Your task to perform on an android device: Search for the best way to make a resume. Image 0: 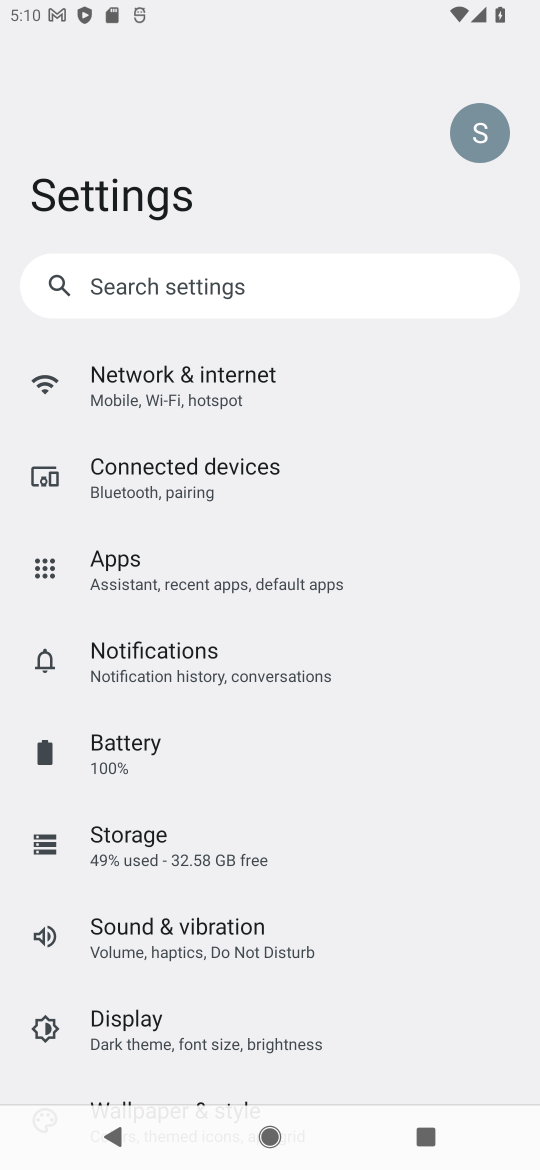
Step 0: press home button
Your task to perform on an android device: Search for the best way to make a resume. Image 1: 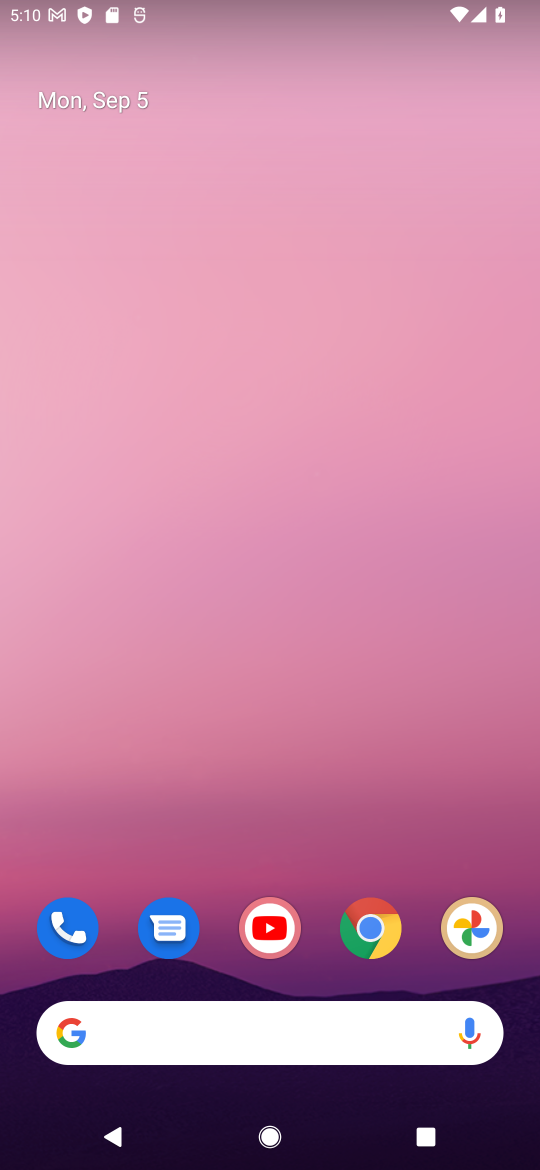
Step 1: click (382, 933)
Your task to perform on an android device: Search for the best way to make a resume. Image 2: 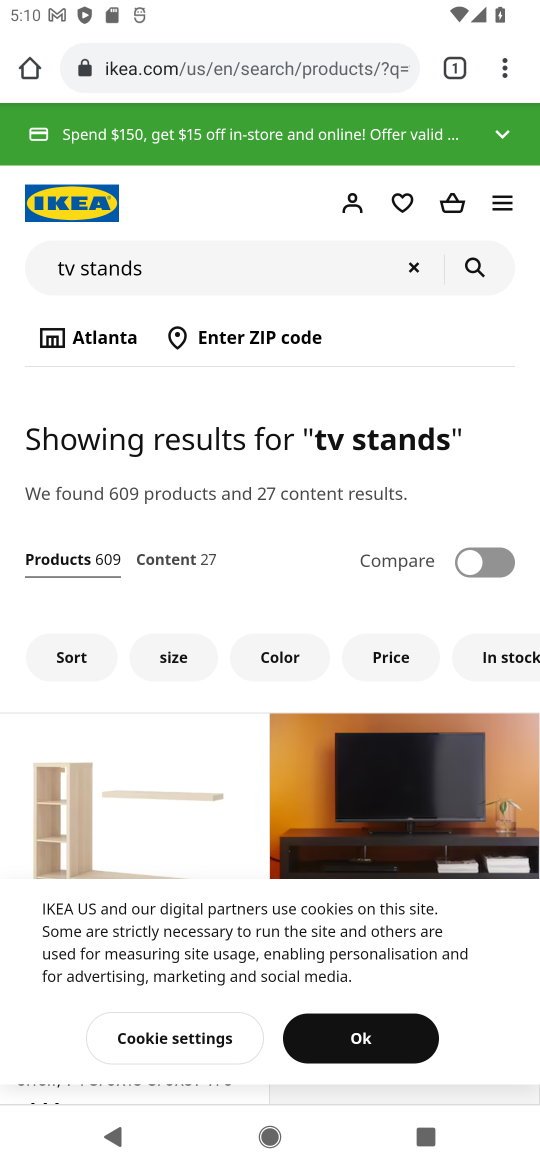
Step 2: click (214, 66)
Your task to perform on an android device: Search for the best way to make a resume. Image 3: 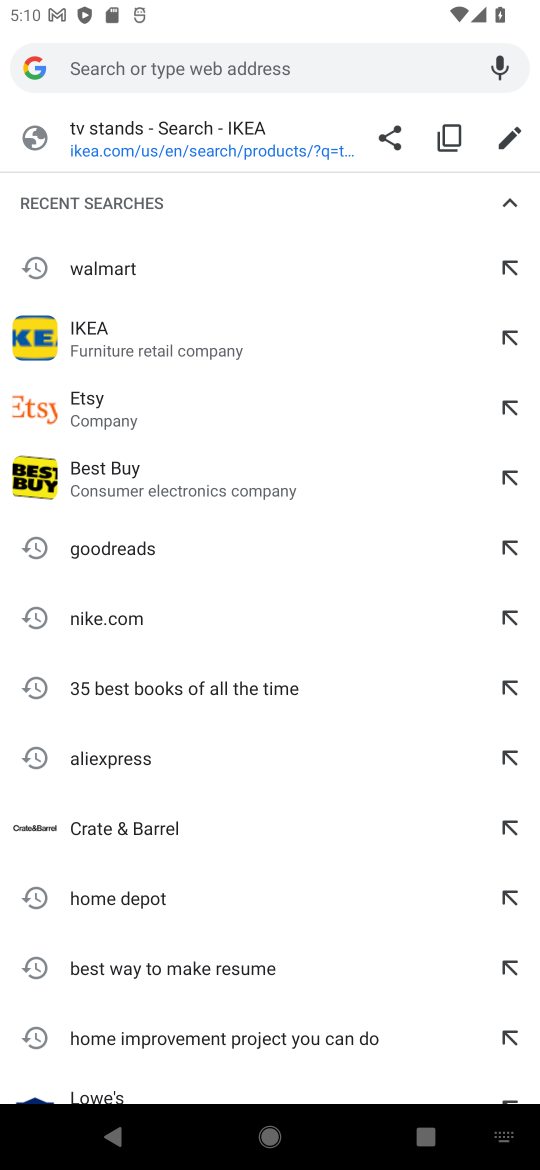
Step 3: type "the best way to make a resume"
Your task to perform on an android device: Search for the best way to make a resume. Image 4: 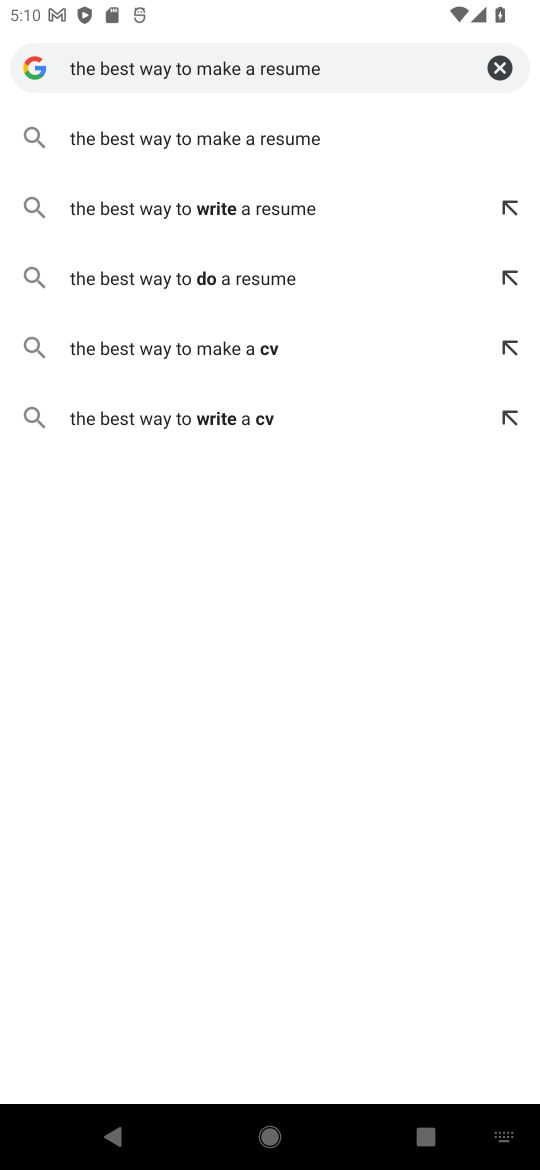
Step 4: click (308, 48)
Your task to perform on an android device: Search for the best way to make a resume. Image 5: 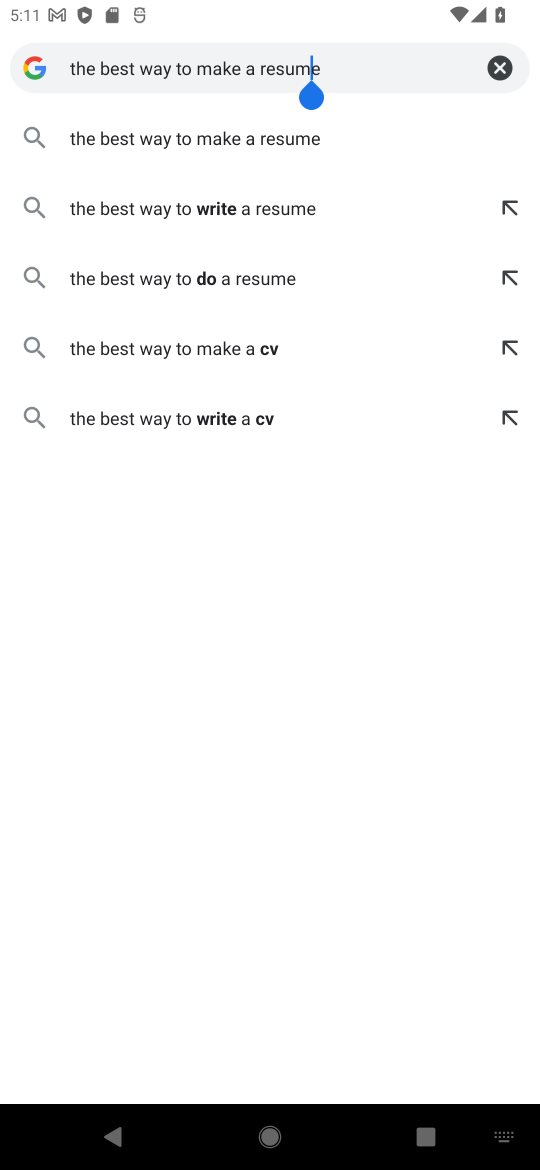
Step 5: click (226, 150)
Your task to perform on an android device: Search for the best way to make a resume. Image 6: 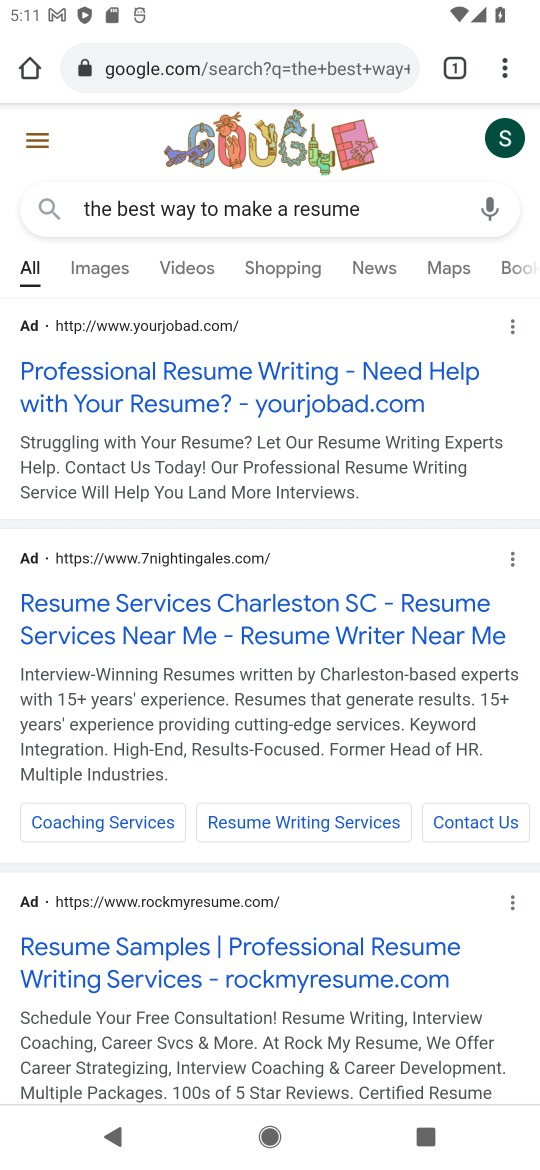
Step 6: task complete